Your task to perform on an android device: change the clock display to digital Image 0: 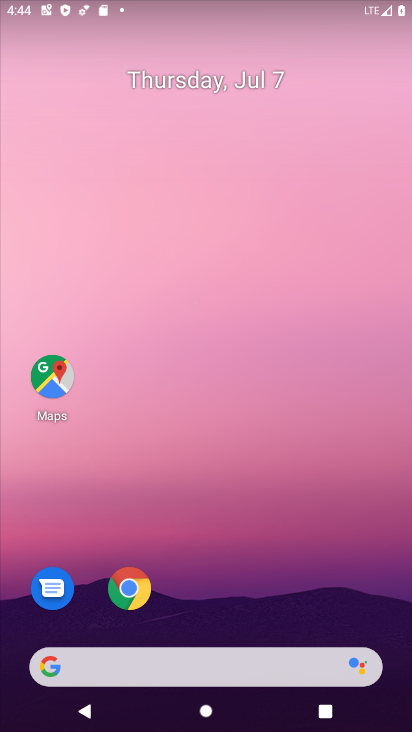
Step 0: drag from (342, 643) to (388, 56)
Your task to perform on an android device: change the clock display to digital Image 1: 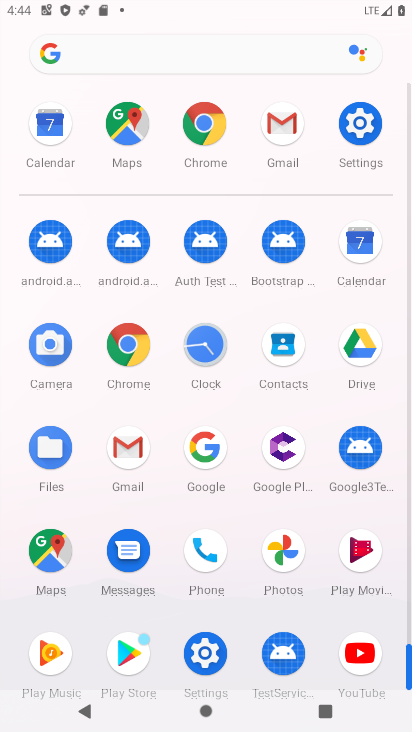
Step 1: click (219, 346)
Your task to perform on an android device: change the clock display to digital Image 2: 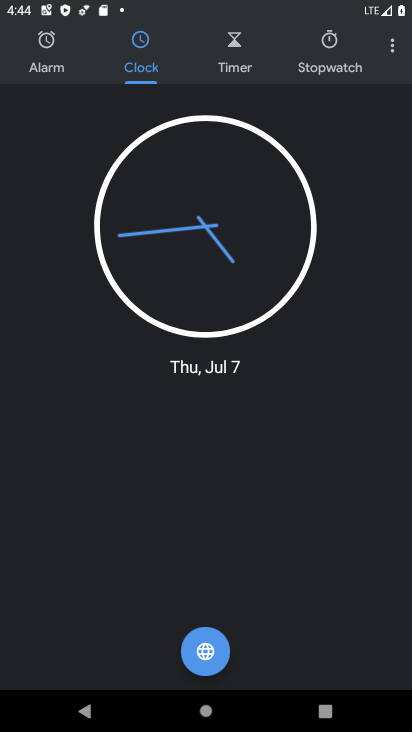
Step 2: click (384, 43)
Your task to perform on an android device: change the clock display to digital Image 3: 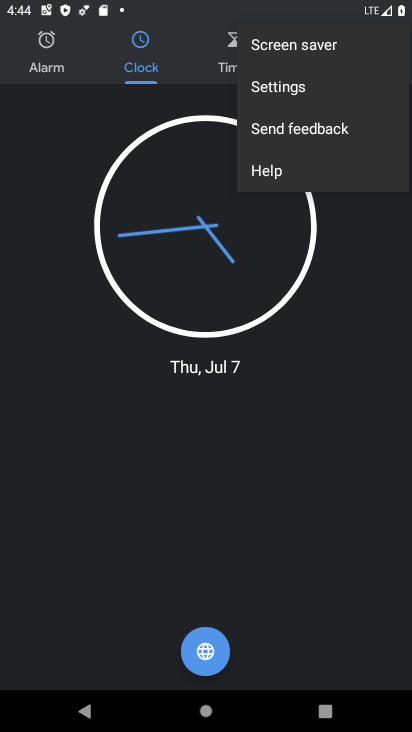
Step 3: click (299, 90)
Your task to perform on an android device: change the clock display to digital Image 4: 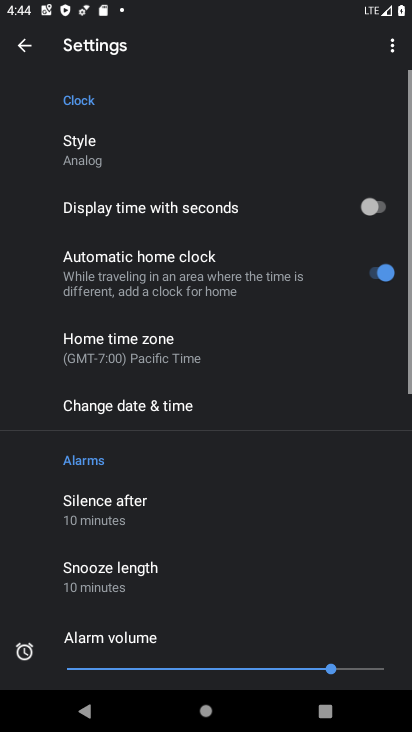
Step 4: click (128, 157)
Your task to perform on an android device: change the clock display to digital Image 5: 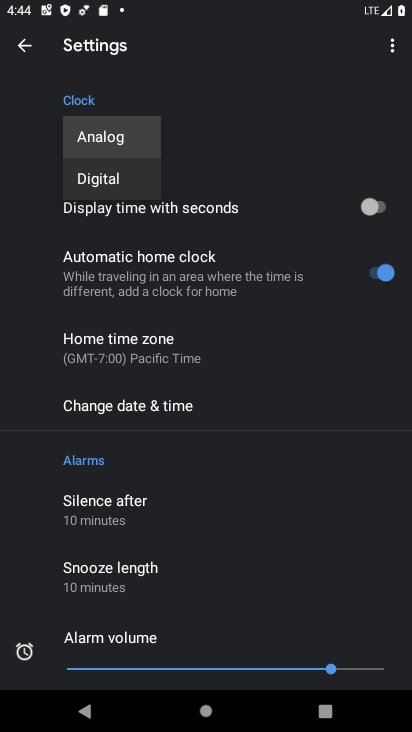
Step 5: click (115, 175)
Your task to perform on an android device: change the clock display to digital Image 6: 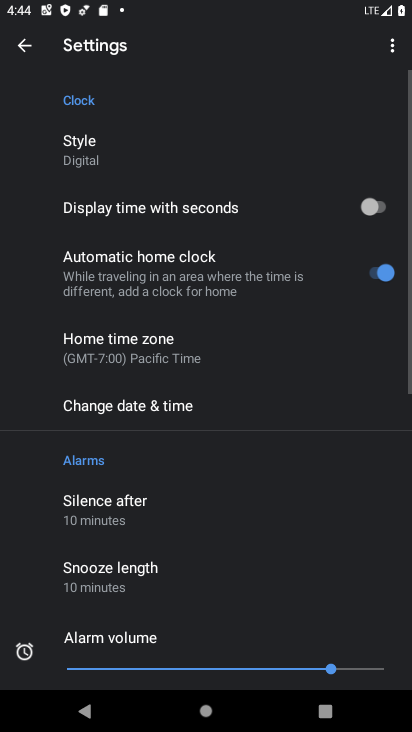
Step 6: task complete